Your task to perform on an android device: turn on airplane mode Image 0: 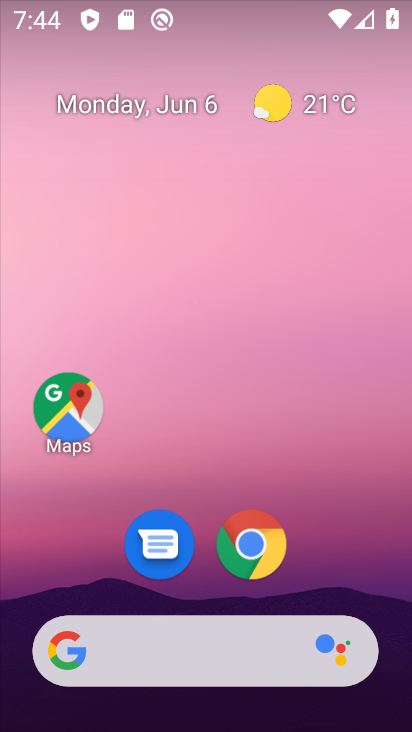
Step 0: drag from (217, 577) to (191, 248)
Your task to perform on an android device: turn on airplane mode Image 1: 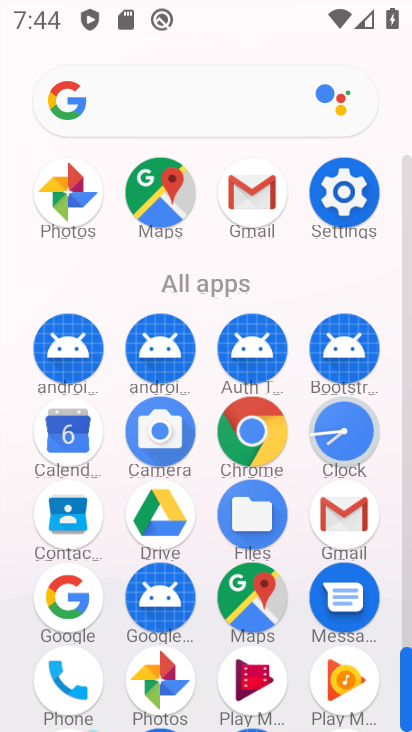
Step 1: click (331, 193)
Your task to perform on an android device: turn on airplane mode Image 2: 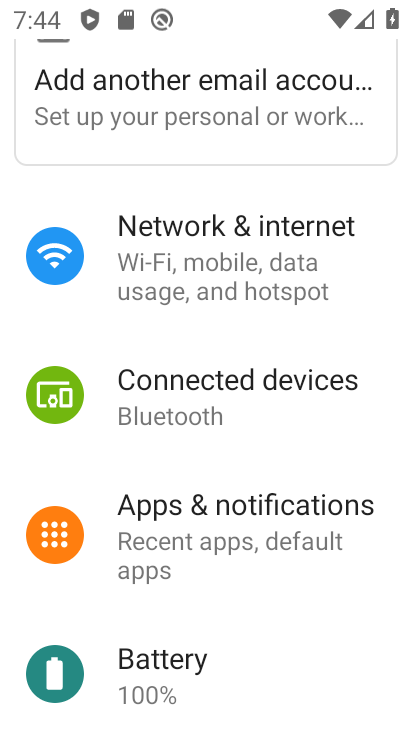
Step 2: click (180, 238)
Your task to perform on an android device: turn on airplane mode Image 3: 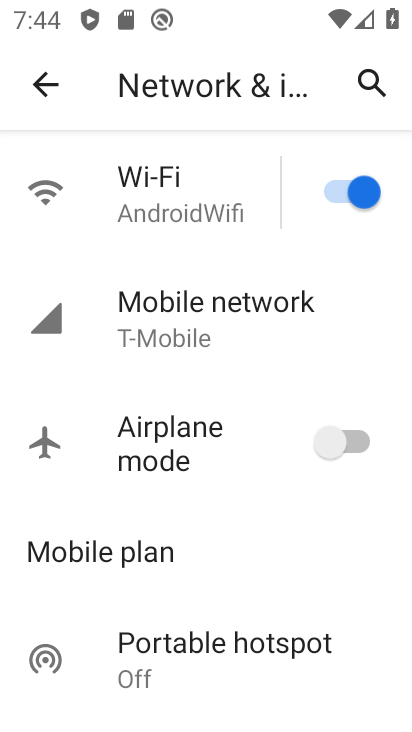
Step 3: click (335, 438)
Your task to perform on an android device: turn on airplane mode Image 4: 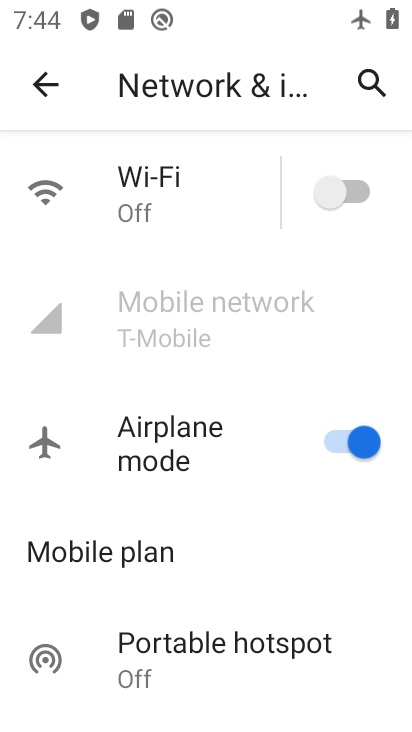
Step 4: task complete